Your task to perform on an android device: Go to Yahoo.com Image 0: 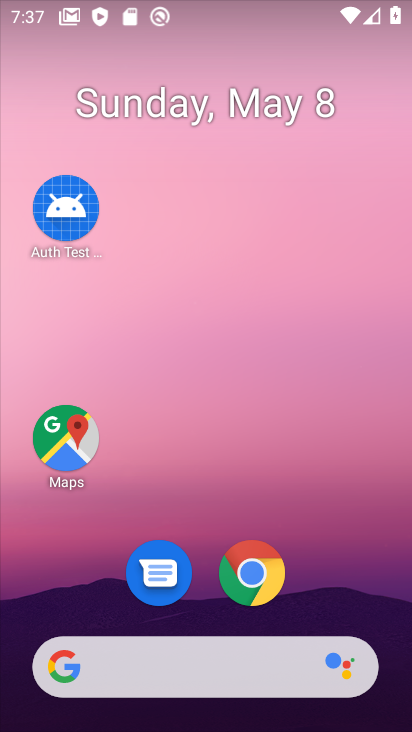
Step 0: drag from (336, 554) to (180, 143)
Your task to perform on an android device: Go to Yahoo.com Image 1: 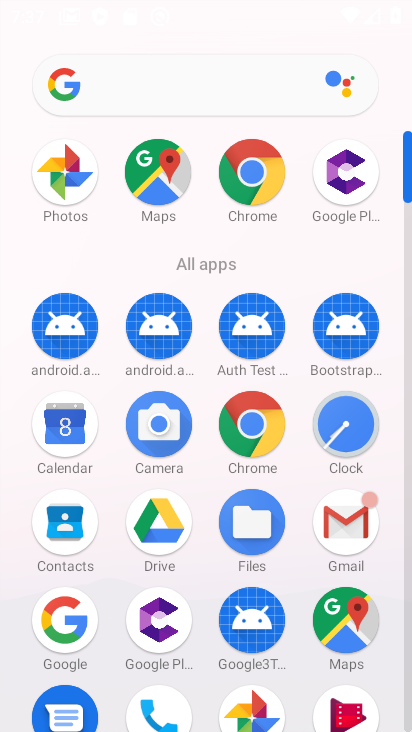
Step 1: click (273, 433)
Your task to perform on an android device: Go to Yahoo.com Image 2: 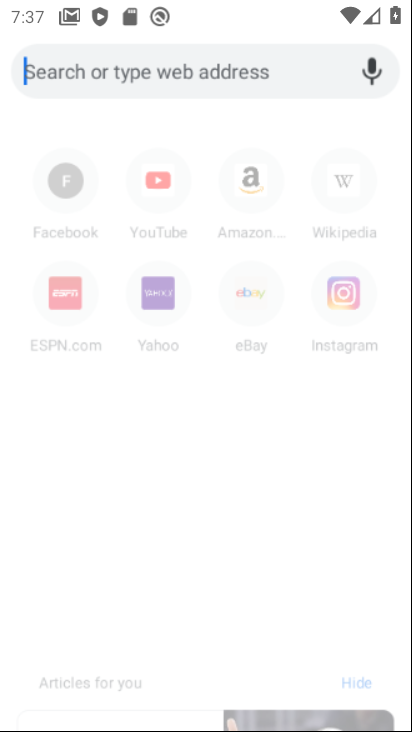
Step 2: click (267, 445)
Your task to perform on an android device: Go to Yahoo.com Image 3: 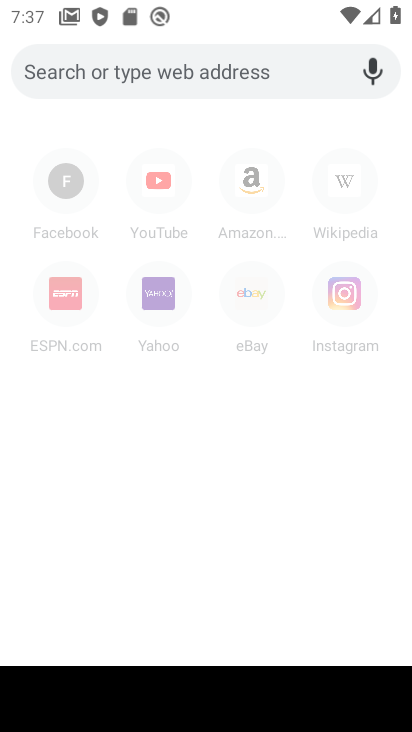
Step 3: click (162, 288)
Your task to perform on an android device: Go to Yahoo.com Image 4: 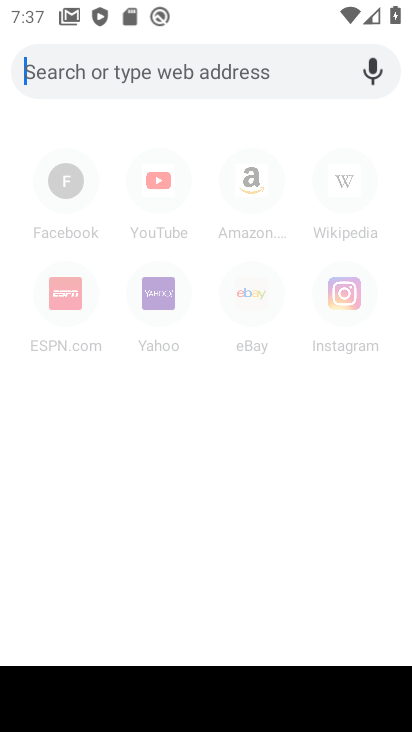
Step 4: click (161, 289)
Your task to perform on an android device: Go to Yahoo.com Image 5: 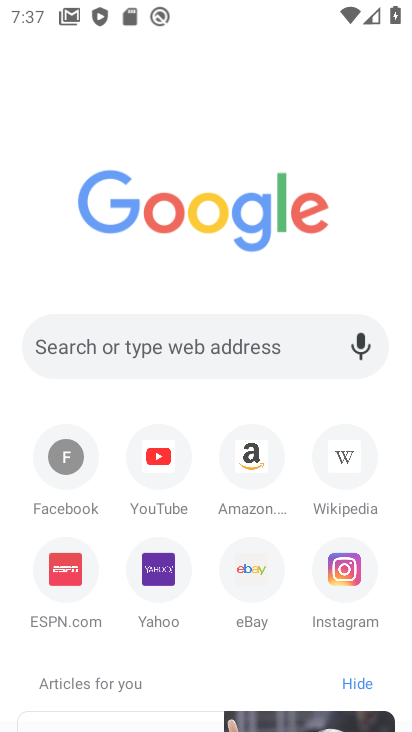
Step 5: click (155, 295)
Your task to perform on an android device: Go to Yahoo.com Image 6: 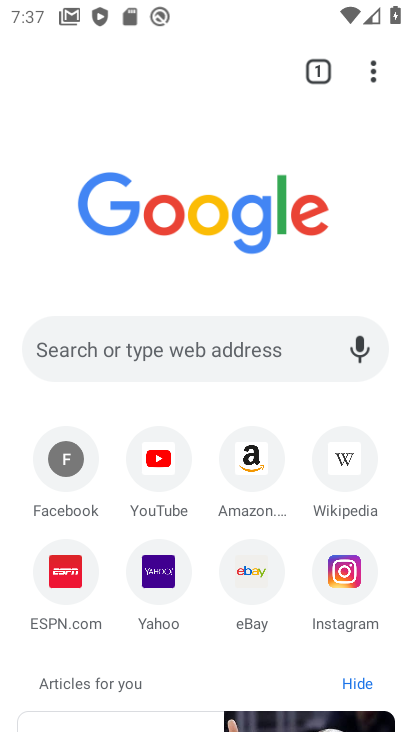
Step 6: click (165, 568)
Your task to perform on an android device: Go to Yahoo.com Image 7: 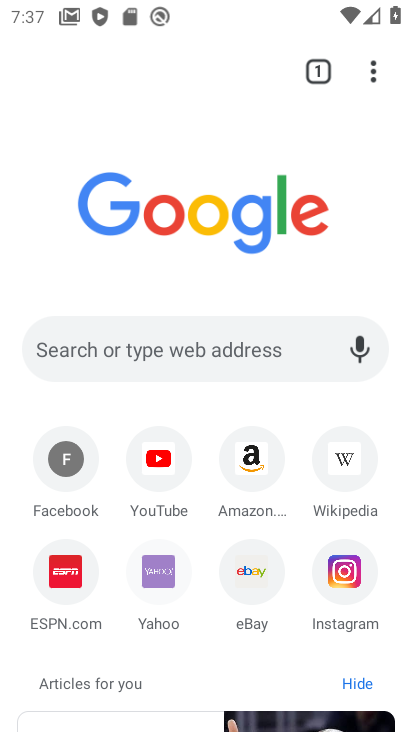
Step 7: click (160, 571)
Your task to perform on an android device: Go to Yahoo.com Image 8: 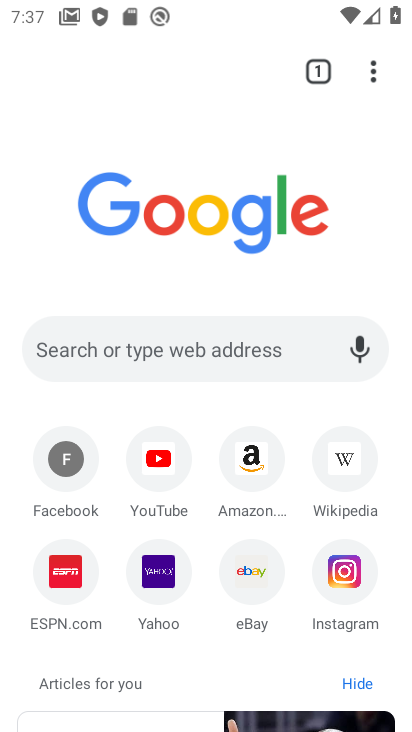
Step 8: click (148, 574)
Your task to perform on an android device: Go to Yahoo.com Image 9: 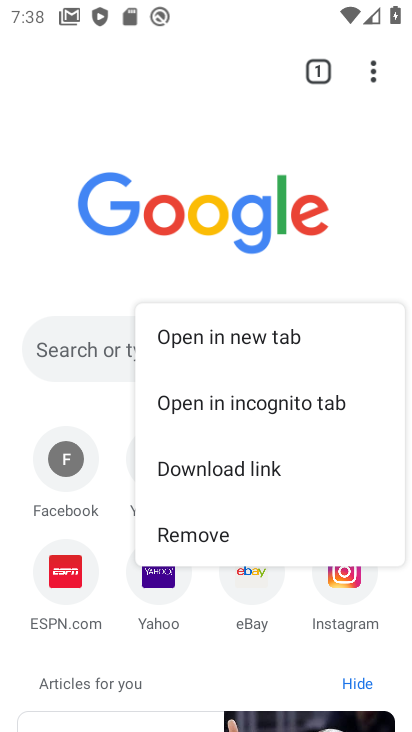
Step 9: click (210, 340)
Your task to perform on an android device: Go to Yahoo.com Image 10: 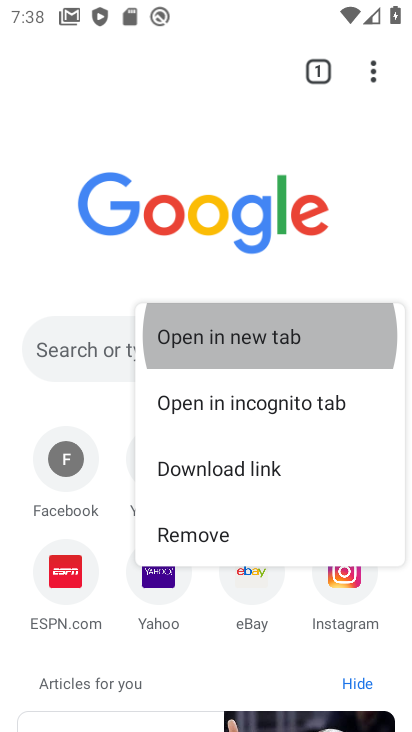
Step 10: click (210, 340)
Your task to perform on an android device: Go to Yahoo.com Image 11: 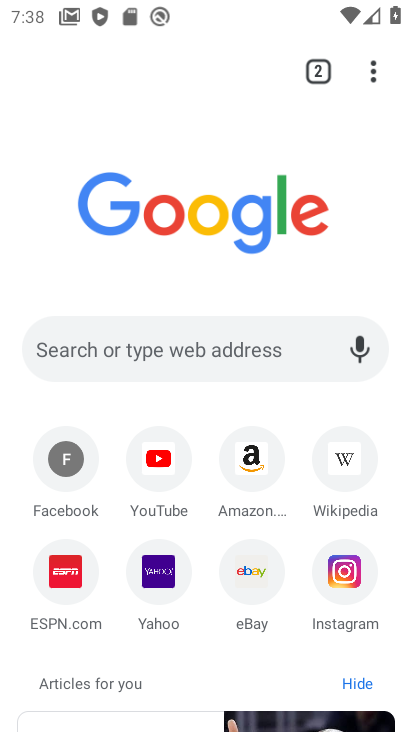
Step 11: click (163, 573)
Your task to perform on an android device: Go to Yahoo.com Image 12: 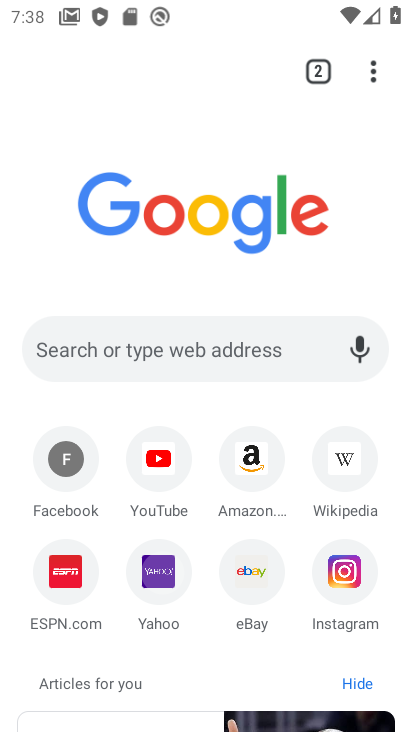
Step 12: click (162, 575)
Your task to perform on an android device: Go to Yahoo.com Image 13: 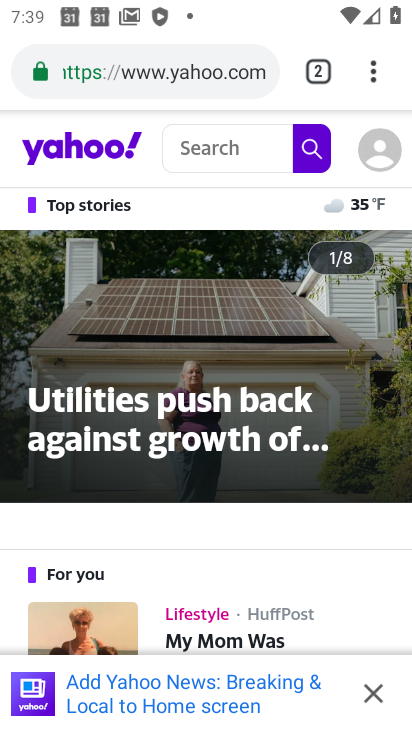
Step 13: task complete